Your task to perform on an android device: set the timer Image 0: 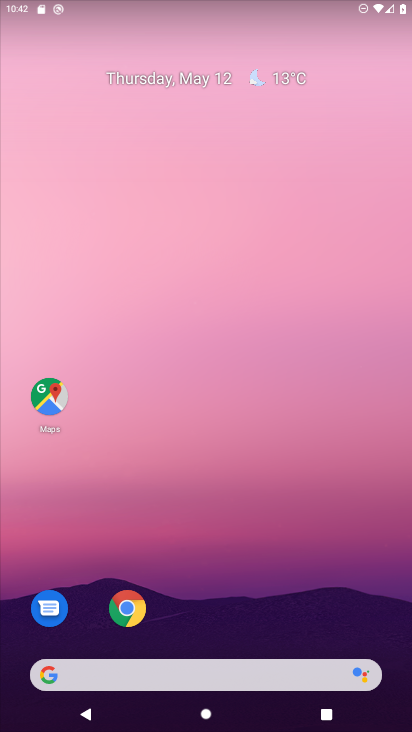
Step 0: drag from (222, 623) to (312, 135)
Your task to perform on an android device: set the timer Image 1: 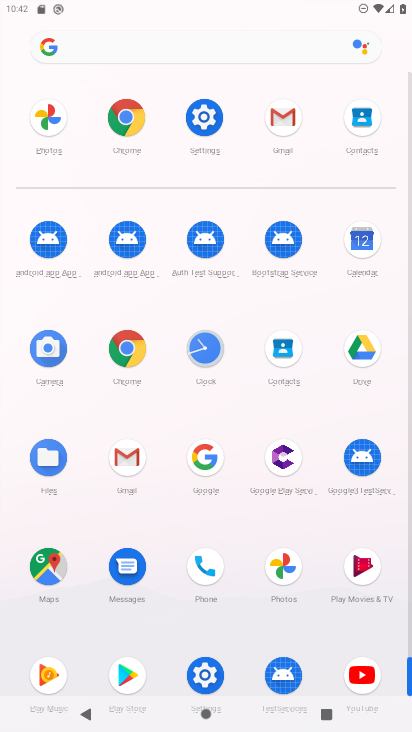
Step 1: click (213, 351)
Your task to perform on an android device: set the timer Image 2: 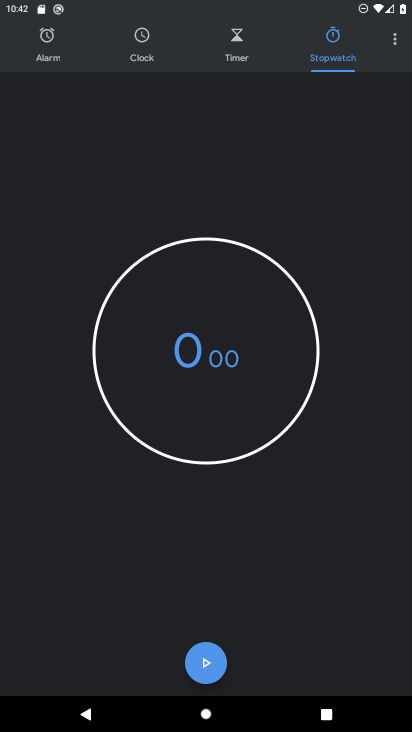
Step 2: click (226, 52)
Your task to perform on an android device: set the timer Image 3: 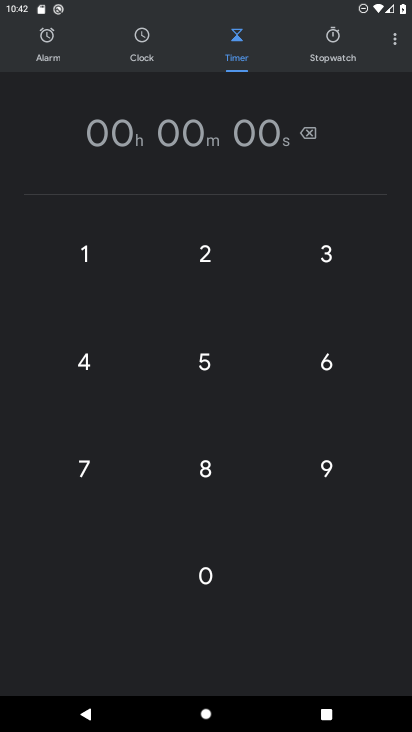
Step 3: click (216, 362)
Your task to perform on an android device: set the timer Image 4: 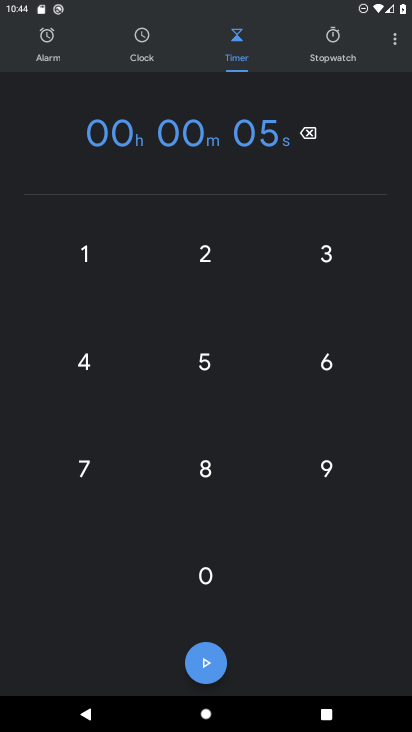
Step 4: task complete